Your task to perform on an android device: turn notification dots off Image 0: 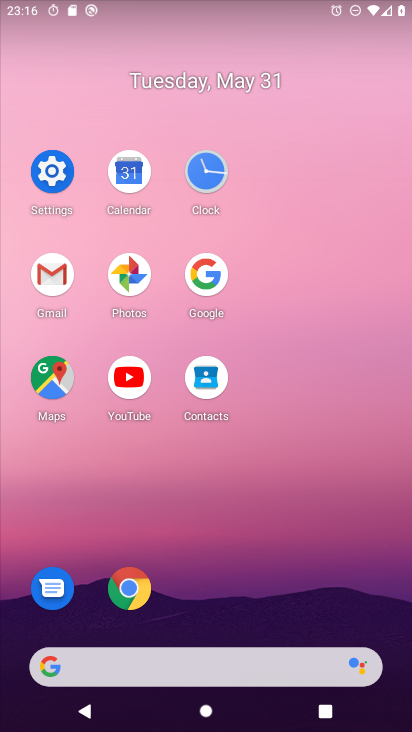
Step 0: click (66, 172)
Your task to perform on an android device: turn notification dots off Image 1: 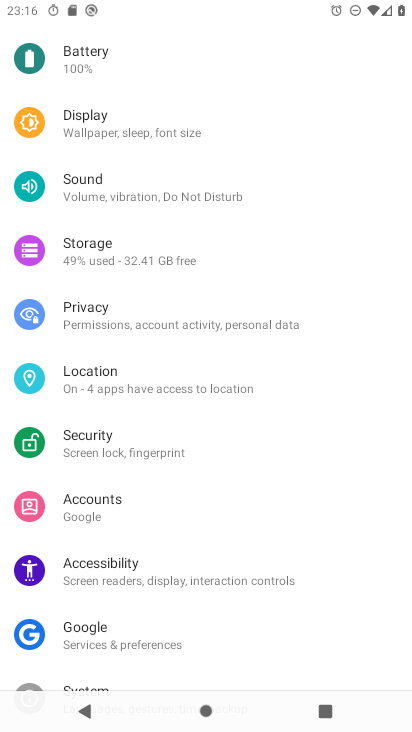
Step 1: drag from (256, 147) to (286, 597)
Your task to perform on an android device: turn notification dots off Image 2: 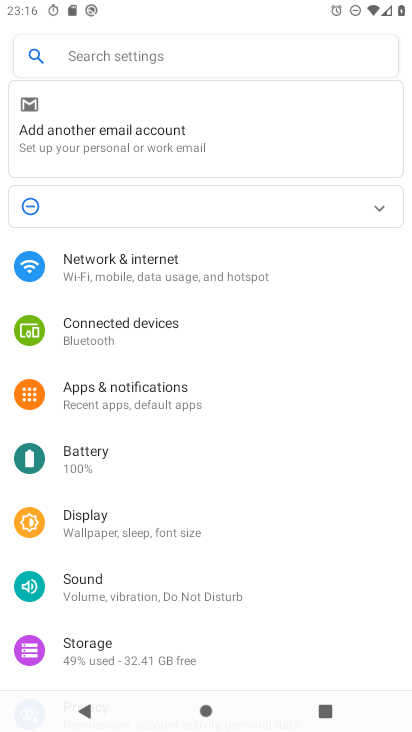
Step 2: click (200, 403)
Your task to perform on an android device: turn notification dots off Image 3: 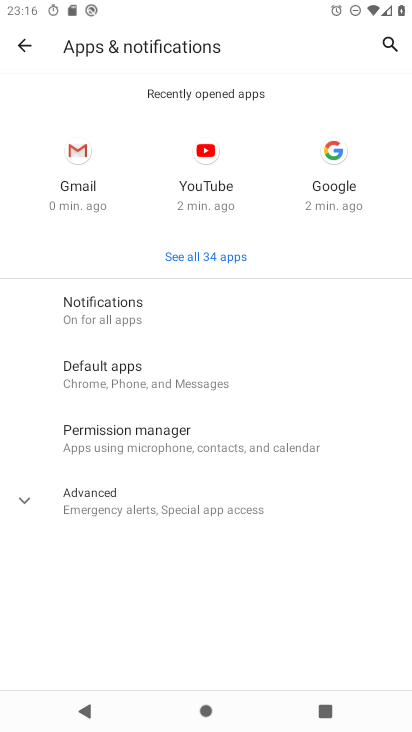
Step 3: click (190, 497)
Your task to perform on an android device: turn notification dots off Image 4: 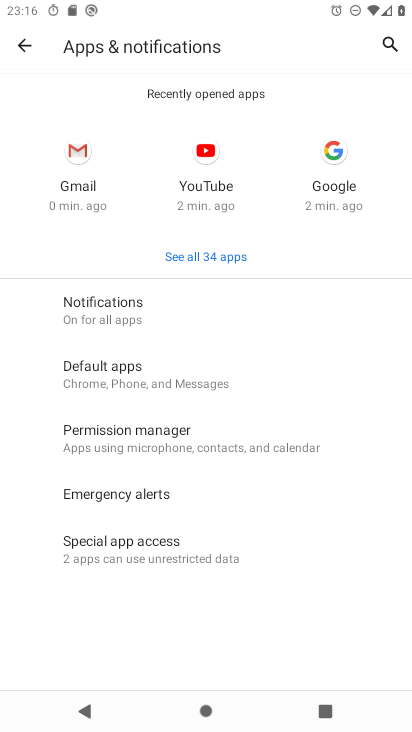
Step 4: click (175, 307)
Your task to perform on an android device: turn notification dots off Image 5: 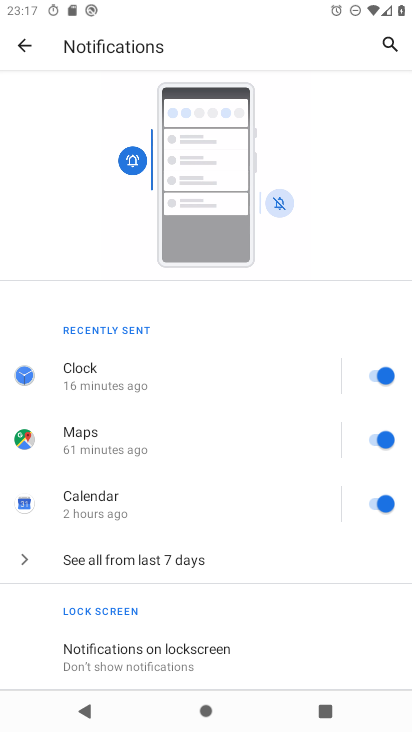
Step 5: drag from (316, 635) to (367, 180)
Your task to perform on an android device: turn notification dots off Image 6: 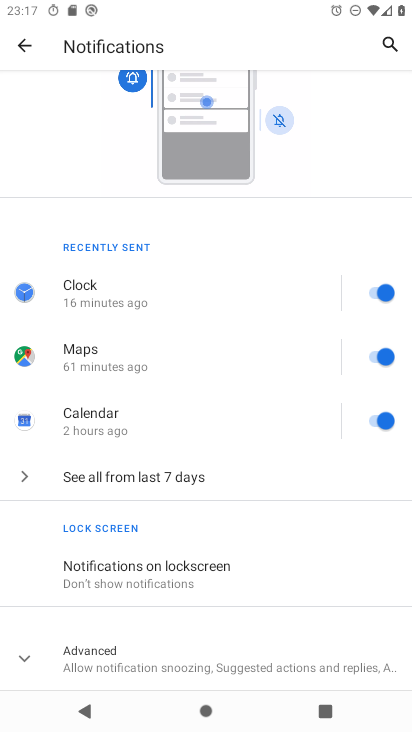
Step 6: click (160, 661)
Your task to perform on an android device: turn notification dots off Image 7: 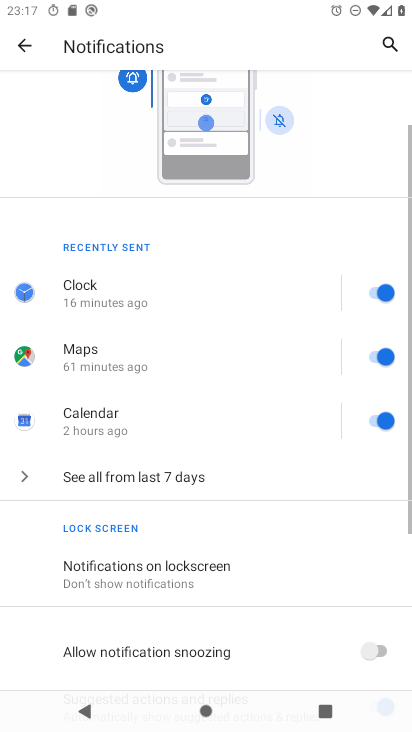
Step 7: drag from (160, 661) to (222, 196)
Your task to perform on an android device: turn notification dots off Image 8: 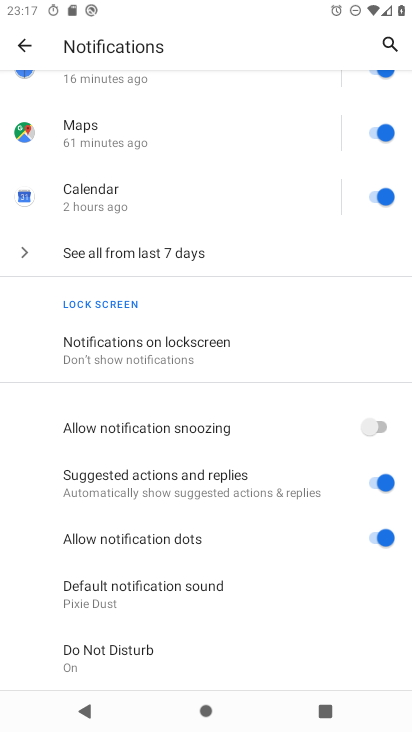
Step 8: click (386, 534)
Your task to perform on an android device: turn notification dots off Image 9: 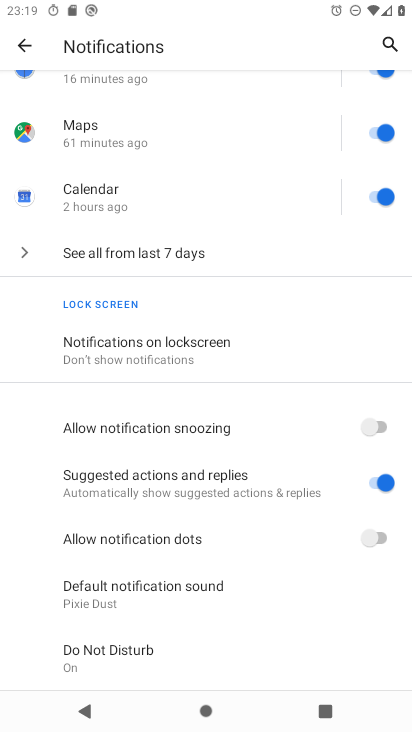
Step 9: task complete